Your task to perform on an android device: Open display settings Image 0: 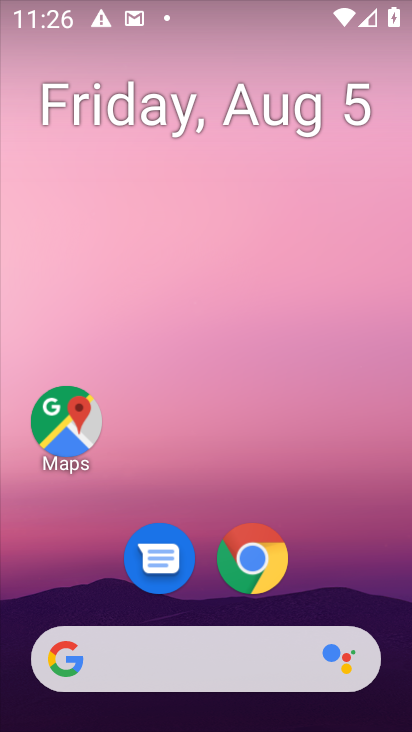
Step 0: press home button
Your task to perform on an android device: Open display settings Image 1: 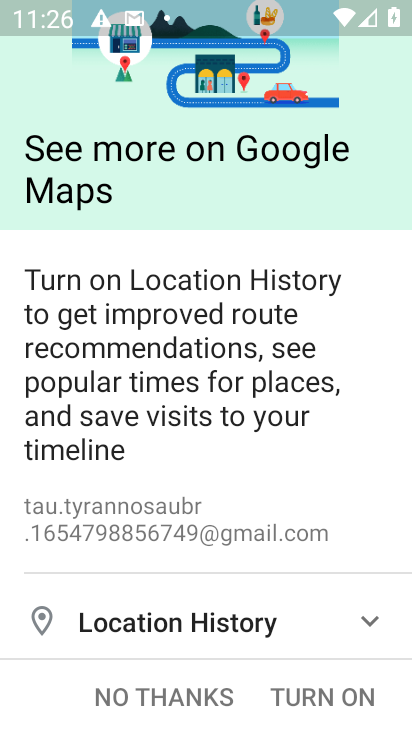
Step 1: press home button
Your task to perform on an android device: Open display settings Image 2: 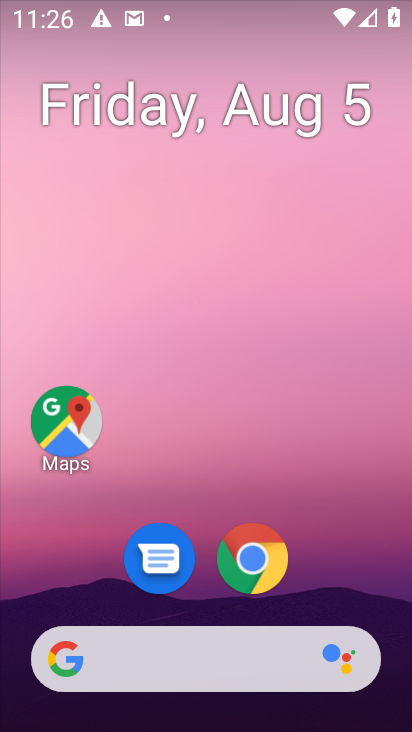
Step 2: drag from (330, 590) to (358, 181)
Your task to perform on an android device: Open display settings Image 3: 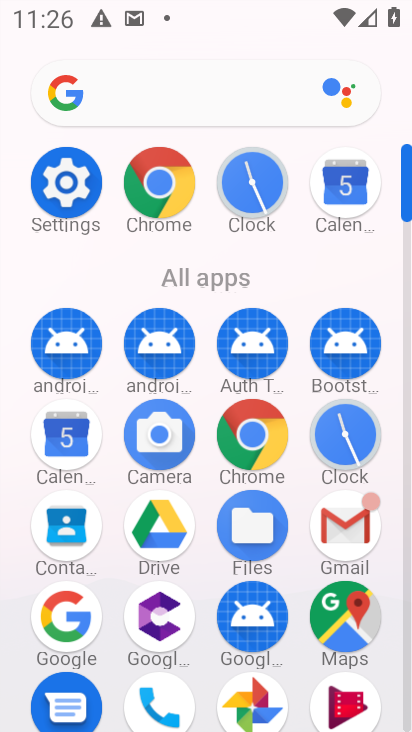
Step 3: click (81, 193)
Your task to perform on an android device: Open display settings Image 4: 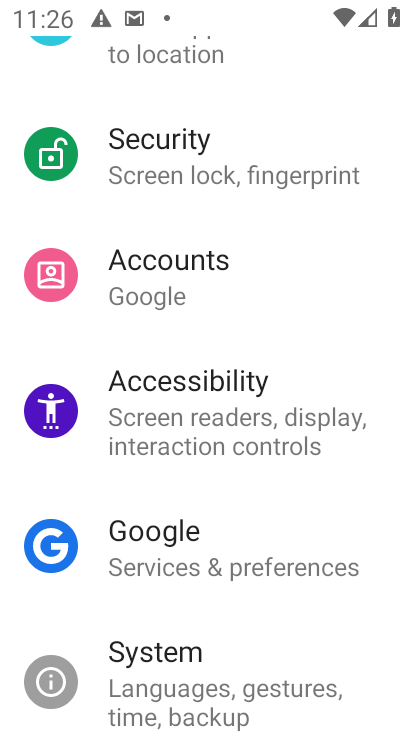
Step 4: drag from (362, 244) to (370, 347)
Your task to perform on an android device: Open display settings Image 5: 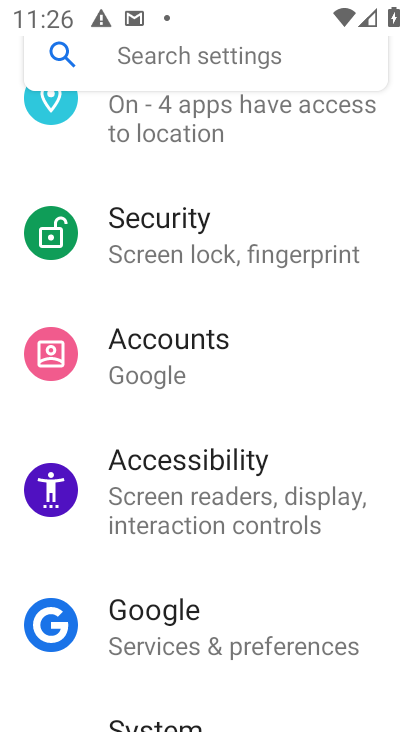
Step 5: drag from (378, 218) to (375, 338)
Your task to perform on an android device: Open display settings Image 6: 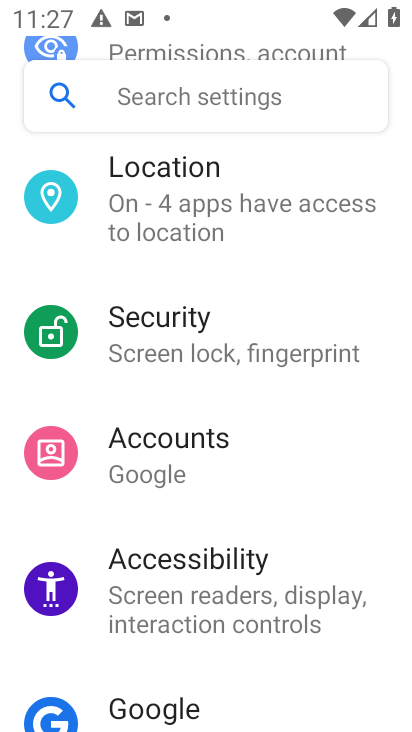
Step 6: drag from (369, 211) to (375, 485)
Your task to perform on an android device: Open display settings Image 7: 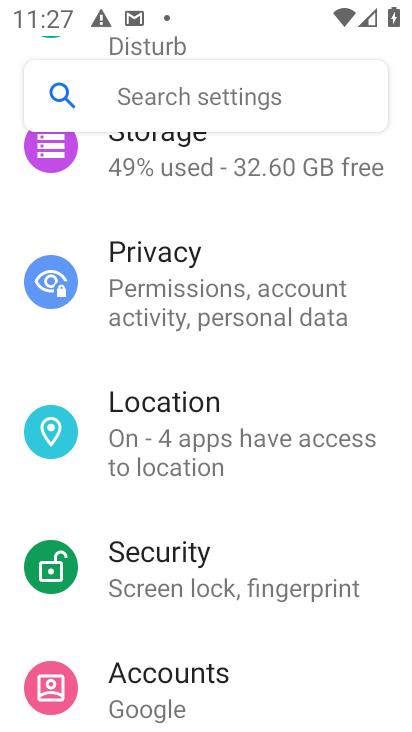
Step 7: drag from (379, 242) to (372, 399)
Your task to perform on an android device: Open display settings Image 8: 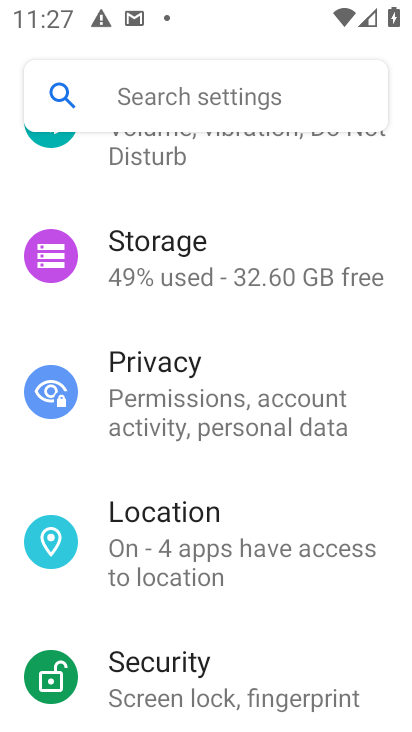
Step 8: drag from (367, 209) to (366, 394)
Your task to perform on an android device: Open display settings Image 9: 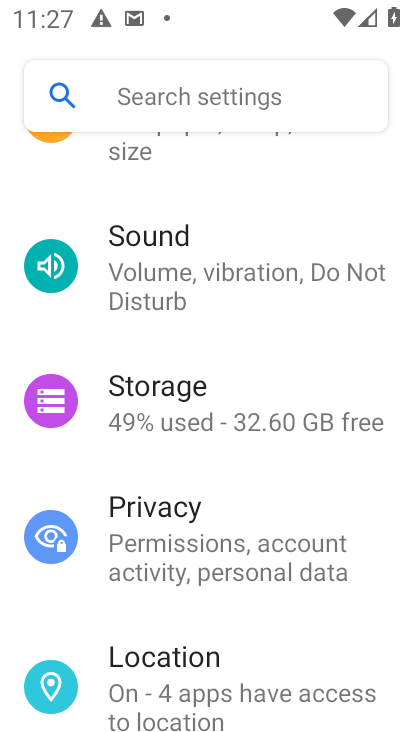
Step 9: drag from (373, 179) to (381, 377)
Your task to perform on an android device: Open display settings Image 10: 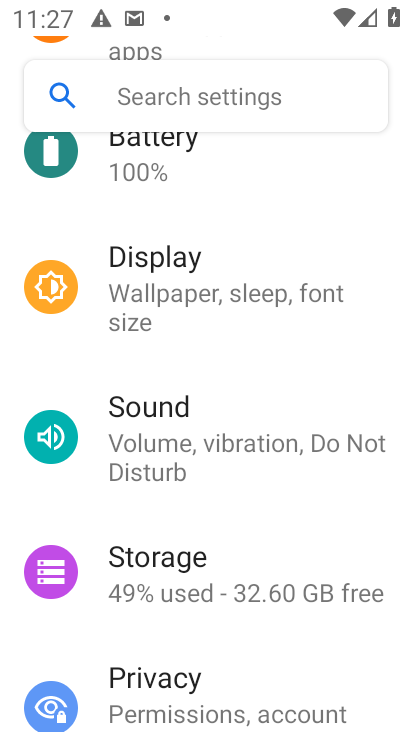
Step 10: drag from (374, 217) to (378, 413)
Your task to perform on an android device: Open display settings Image 11: 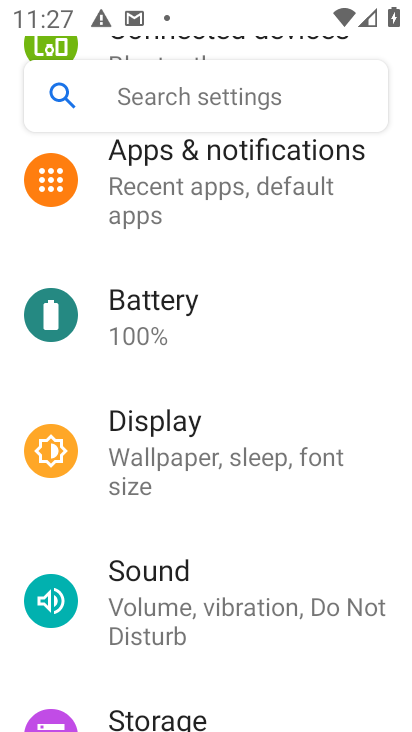
Step 11: click (311, 448)
Your task to perform on an android device: Open display settings Image 12: 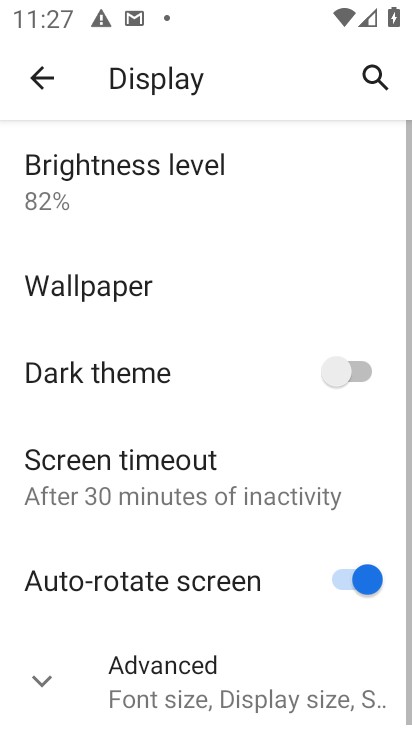
Step 12: drag from (292, 511) to (294, 332)
Your task to perform on an android device: Open display settings Image 13: 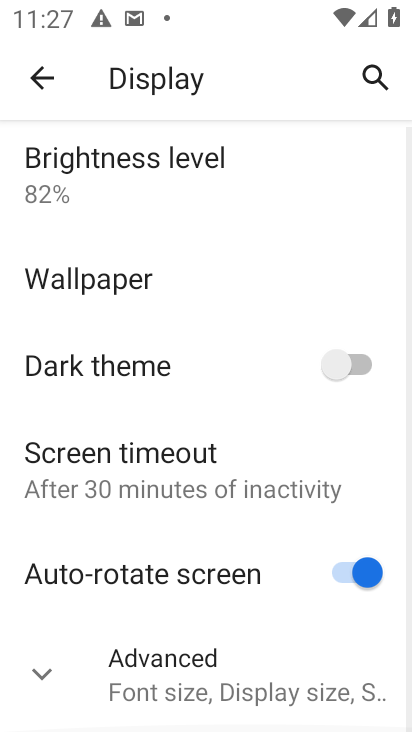
Step 13: click (258, 643)
Your task to perform on an android device: Open display settings Image 14: 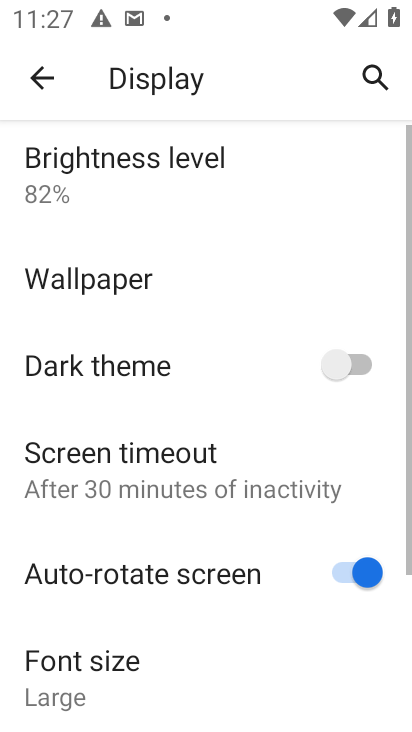
Step 14: task complete